Your task to perform on an android device: open chrome and create a bookmark for the current page Image 0: 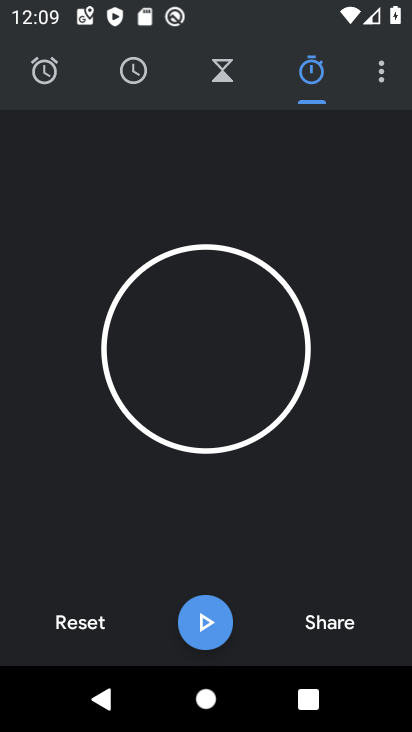
Step 0: press home button
Your task to perform on an android device: open chrome and create a bookmark for the current page Image 1: 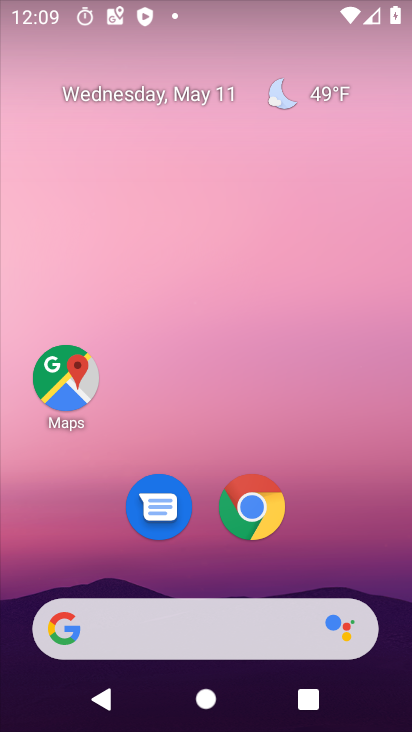
Step 1: click (256, 506)
Your task to perform on an android device: open chrome and create a bookmark for the current page Image 2: 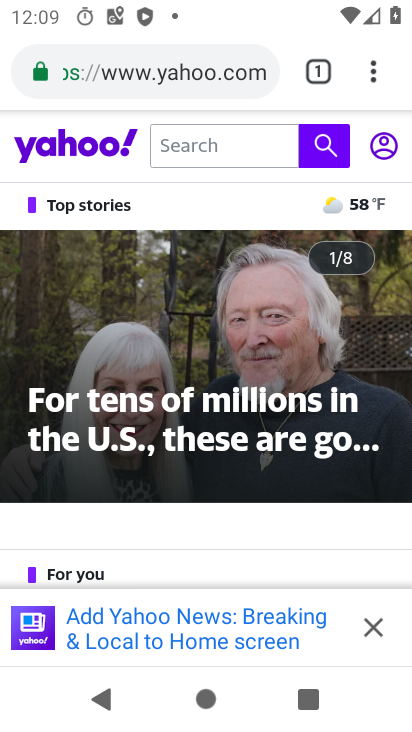
Step 2: click (361, 63)
Your task to perform on an android device: open chrome and create a bookmark for the current page Image 3: 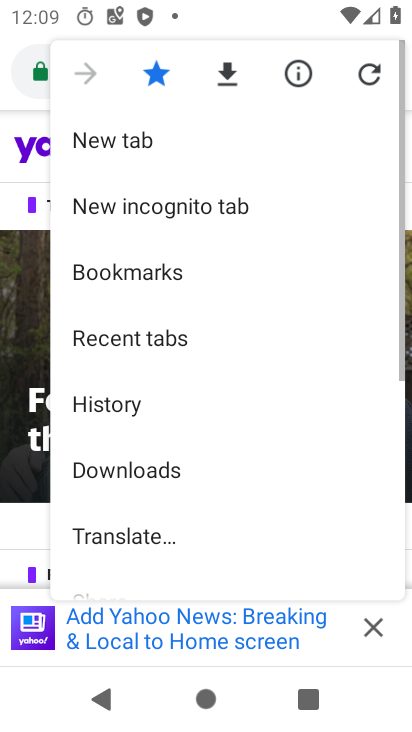
Step 3: drag from (208, 486) to (206, 216)
Your task to perform on an android device: open chrome and create a bookmark for the current page Image 4: 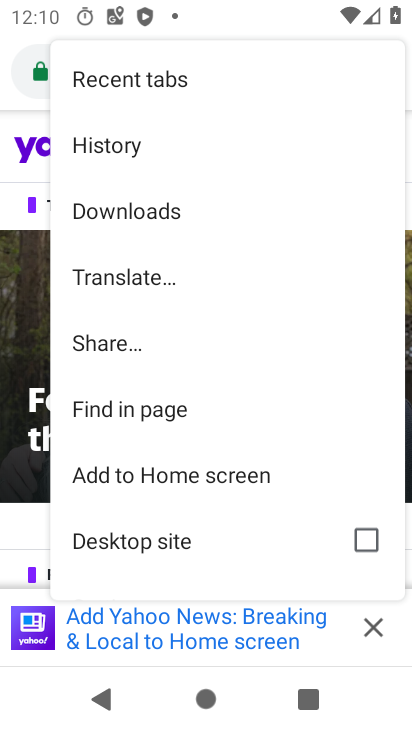
Step 4: click (4, 113)
Your task to perform on an android device: open chrome and create a bookmark for the current page Image 5: 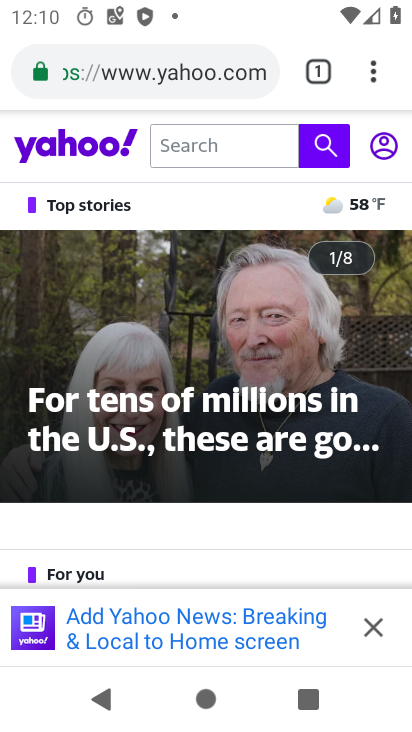
Step 5: click (365, 65)
Your task to perform on an android device: open chrome and create a bookmark for the current page Image 6: 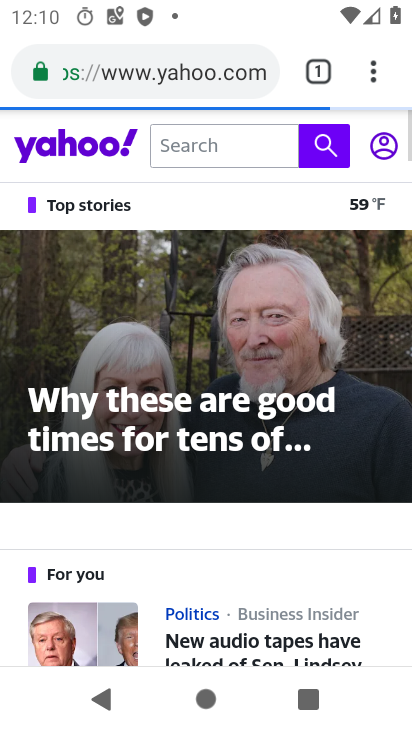
Step 6: click (365, 65)
Your task to perform on an android device: open chrome and create a bookmark for the current page Image 7: 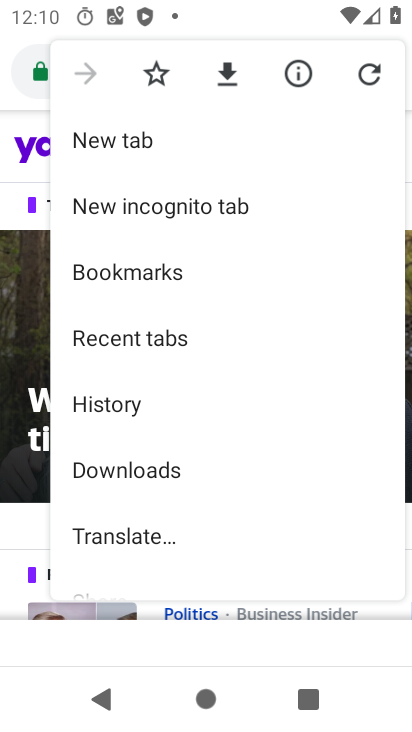
Step 7: click (166, 79)
Your task to perform on an android device: open chrome and create a bookmark for the current page Image 8: 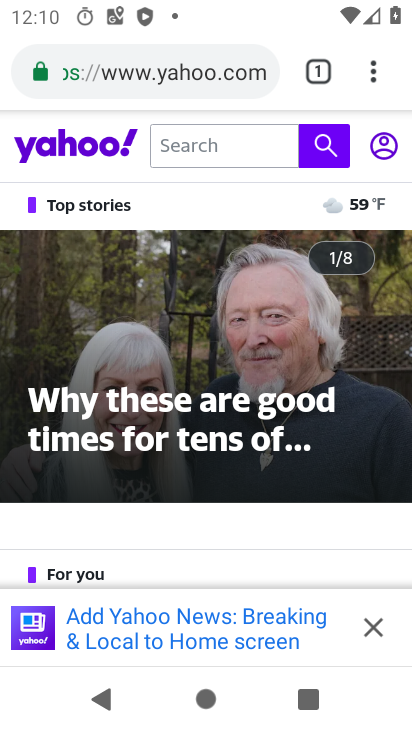
Step 8: task complete